Your task to perform on an android device: turn on data saver in the chrome app Image 0: 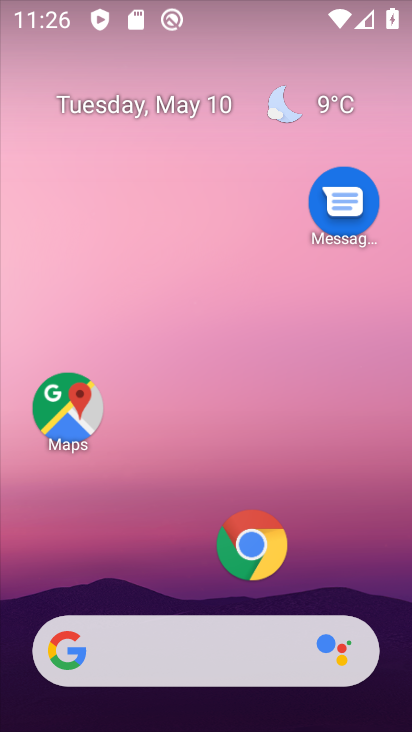
Step 0: drag from (159, 596) to (254, 78)
Your task to perform on an android device: turn on data saver in the chrome app Image 1: 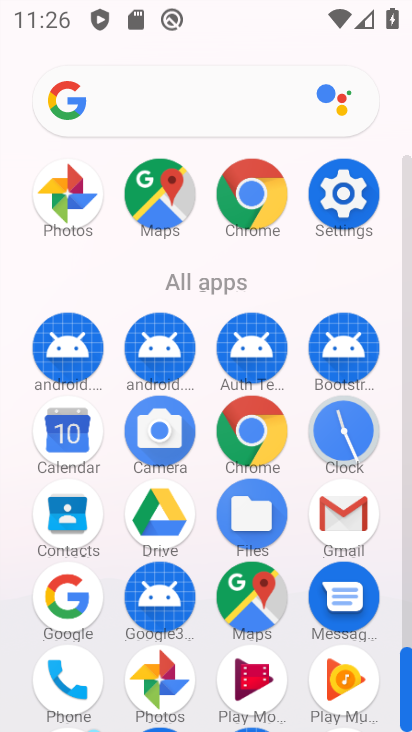
Step 1: click (248, 432)
Your task to perform on an android device: turn on data saver in the chrome app Image 2: 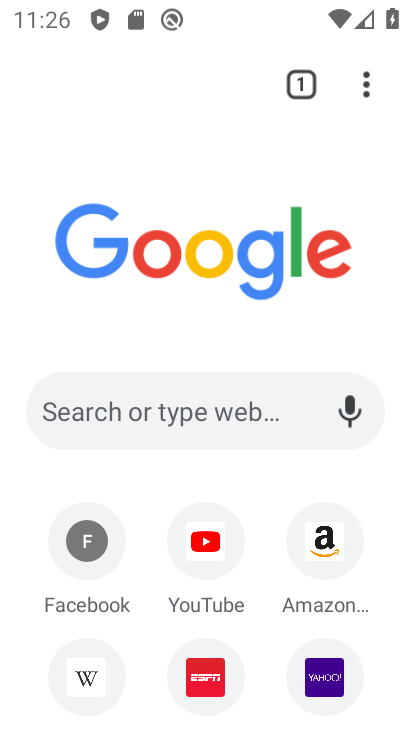
Step 2: click (359, 91)
Your task to perform on an android device: turn on data saver in the chrome app Image 3: 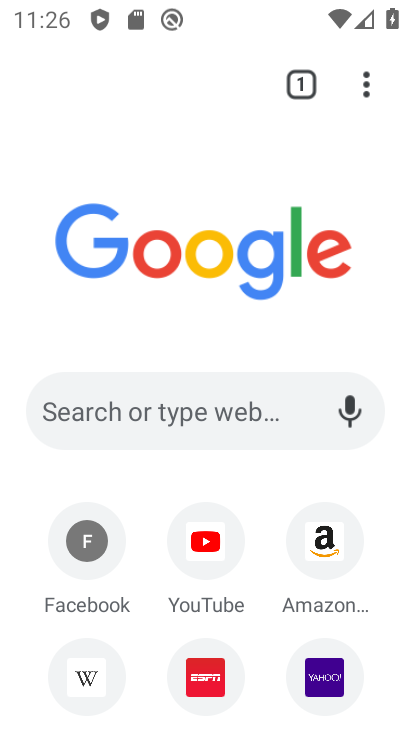
Step 3: drag from (358, 91) to (239, 613)
Your task to perform on an android device: turn on data saver in the chrome app Image 4: 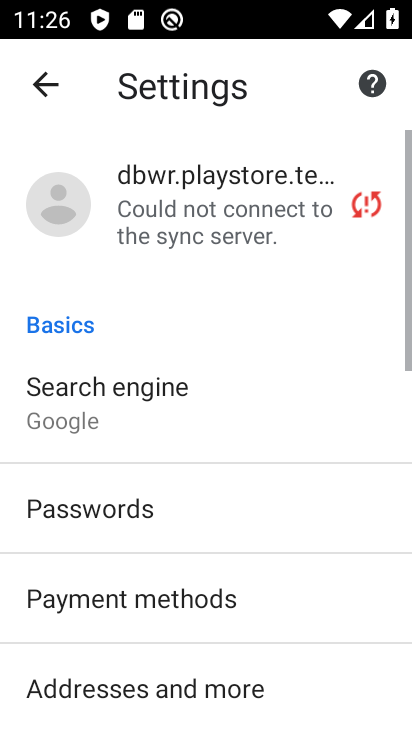
Step 4: drag from (239, 609) to (299, 330)
Your task to perform on an android device: turn on data saver in the chrome app Image 5: 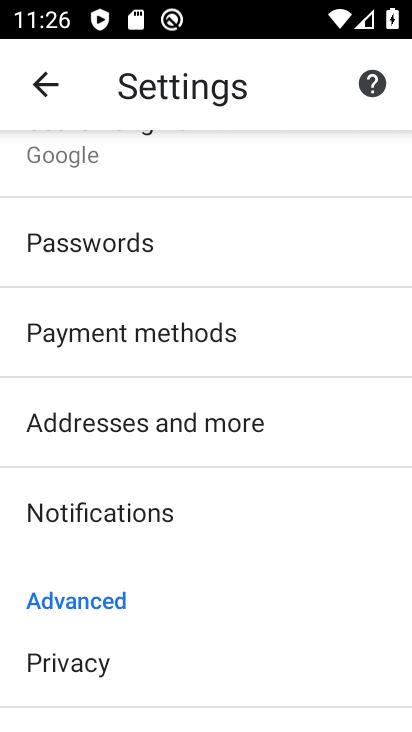
Step 5: drag from (222, 599) to (302, 348)
Your task to perform on an android device: turn on data saver in the chrome app Image 6: 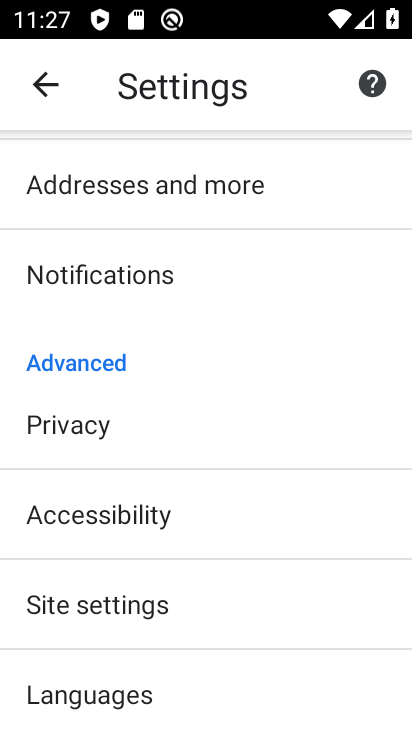
Step 6: drag from (186, 649) to (268, 381)
Your task to perform on an android device: turn on data saver in the chrome app Image 7: 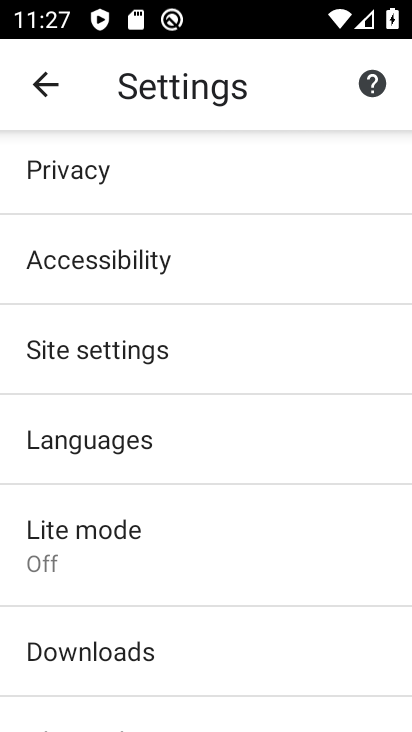
Step 7: click (159, 542)
Your task to perform on an android device: turn on data saver in the chrome app Image 8: 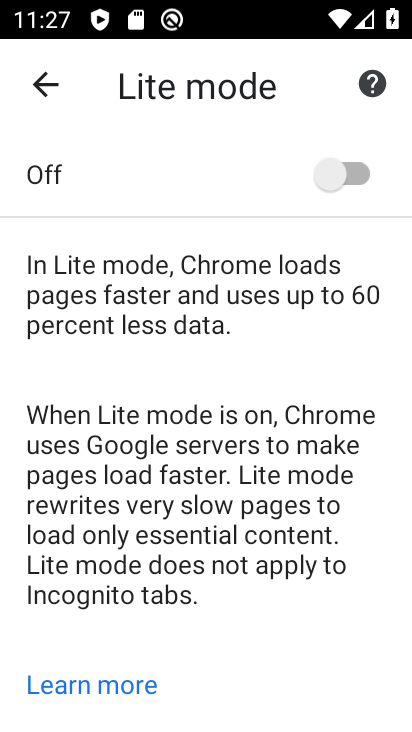
Step 8: click (369, 176)
Your task to perform on an android device: turn on data saver in the chrome app Image 9: 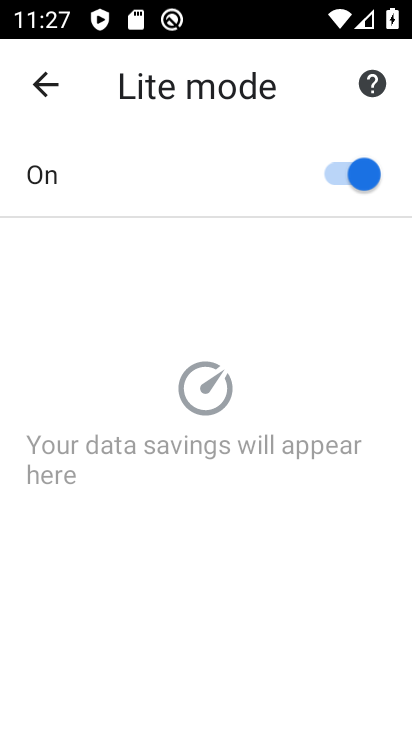
Step 9: task complete